Your task to perform on an android device: Check the news Image 0: 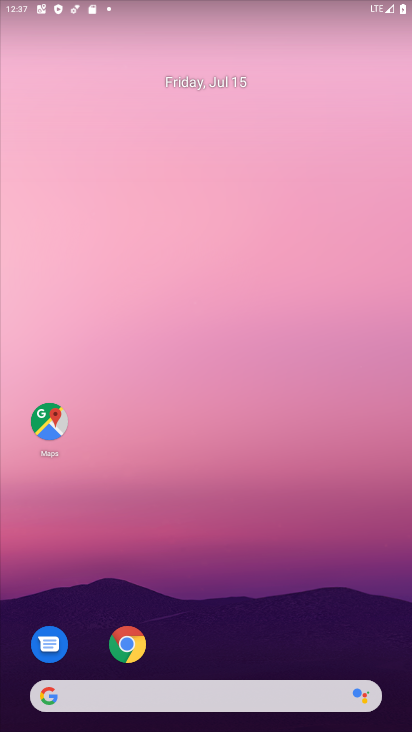
Step 0: click (131, 689)
Your task to perform on an android device: Check the news Image 1: 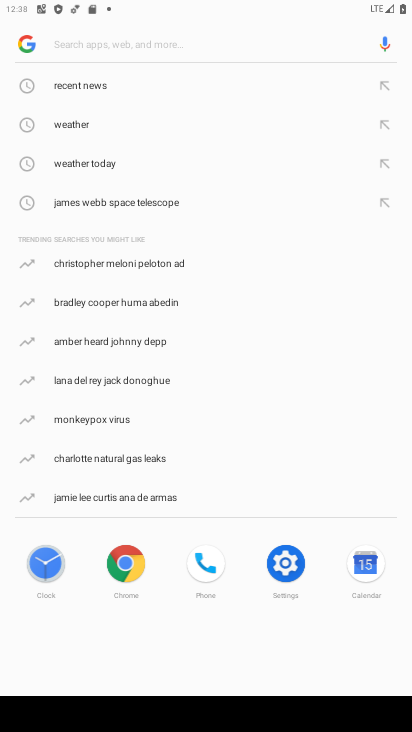
Step 1: click (84, 87)
Your task to perform on an android device: Check the news Image 2: 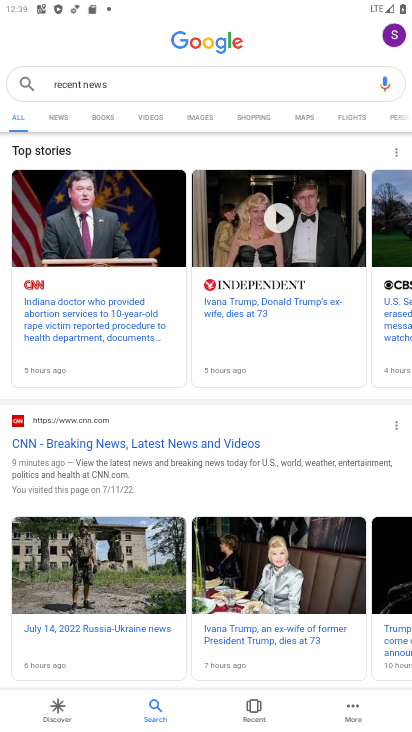
Step 2: task complete